Your task to perform on an android device: Open privacy settings Image 0: 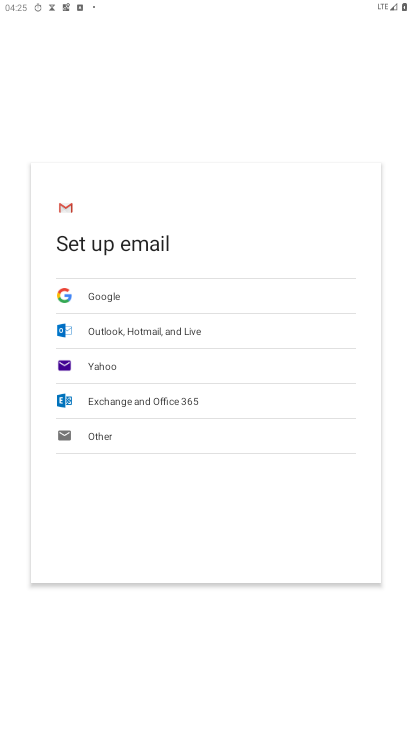
Step 0: press home button
Your task to perform on an android device: Open privacy settings Image 1: 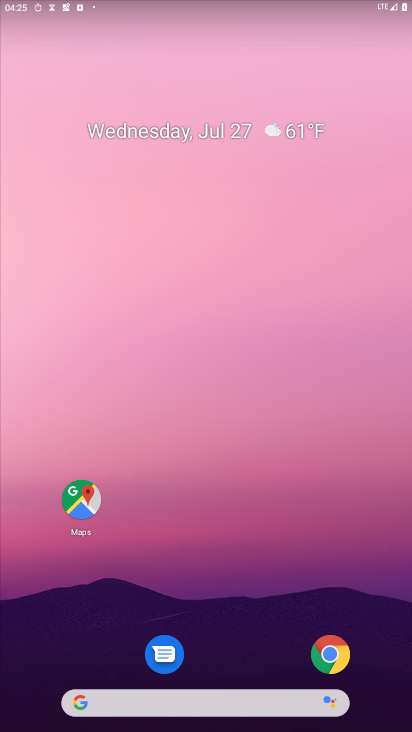
Step 1: drag from (227, 678) to (348, 92)
Your task to perform on an android device: Open privacy settings Image 2: 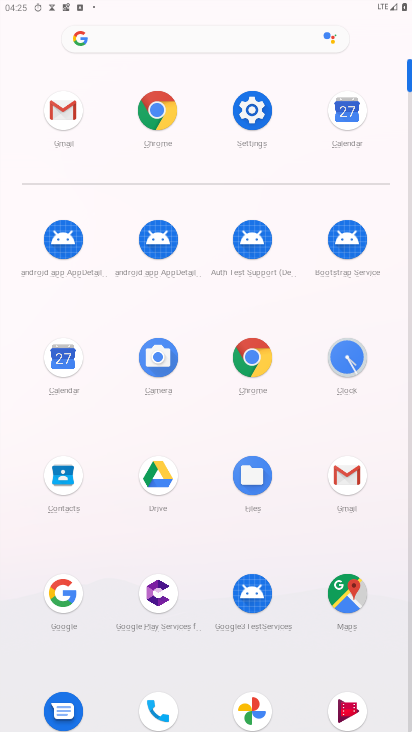
Step 2: click (259, 102)
Your task to perform on an android device: Open privacy settings Image 3: 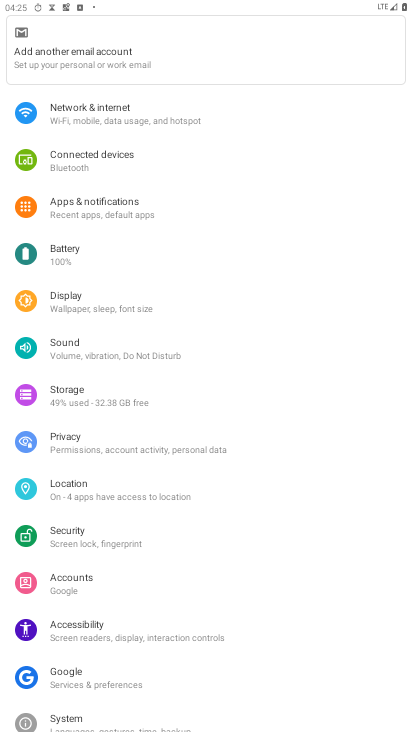
Step 3: click (82, 436)
Your task to perform on an android device: Open privacy settings Image 4: 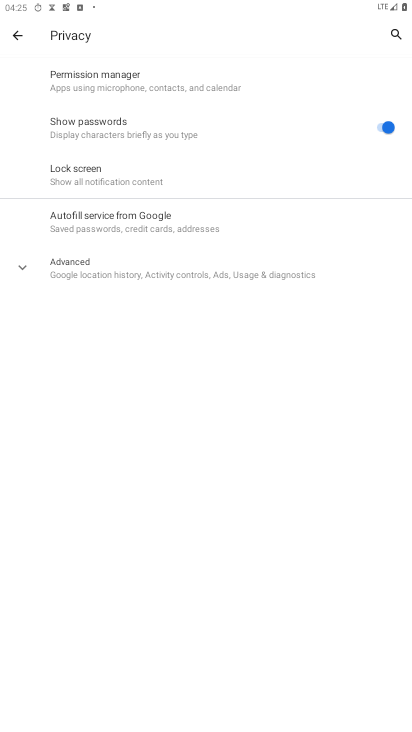
Step 4: task complete